Your task to perform on an android device: Open Google Maps and go to "Timeline" Image 0: 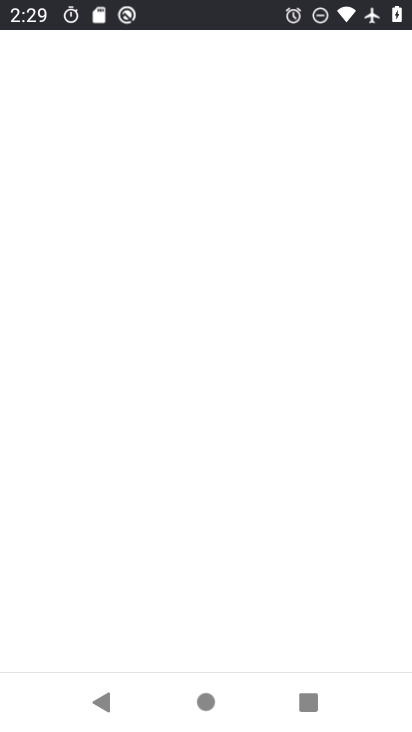
Step 0: press home button
Your task to perform on an android device: Open Google Maps and go to "Timeline" Image 1: 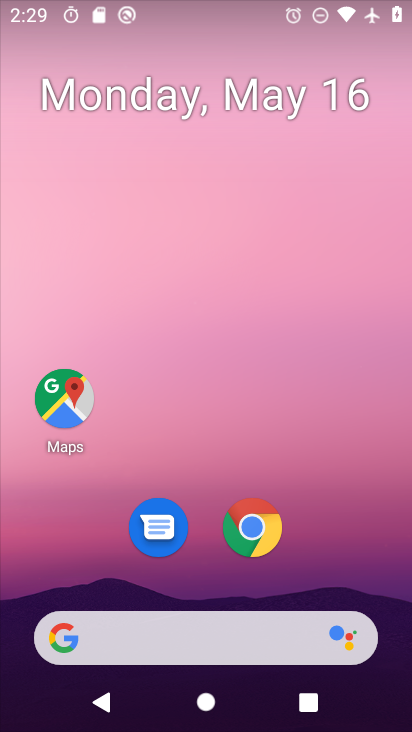
Step 1: click (70, 407)
Your task to perform on an android device: Open Google Maps and go to "Timeline" Image 2: 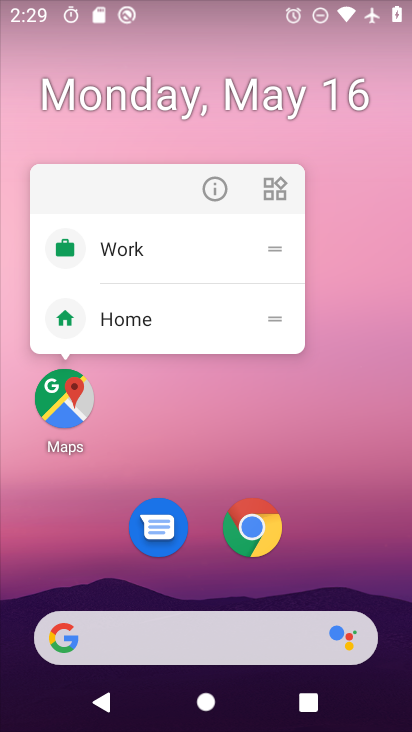
Step 2: click (64, 403)
Your task to perform on an android device: Open Google Maps and go to "Timeline" Image 3: 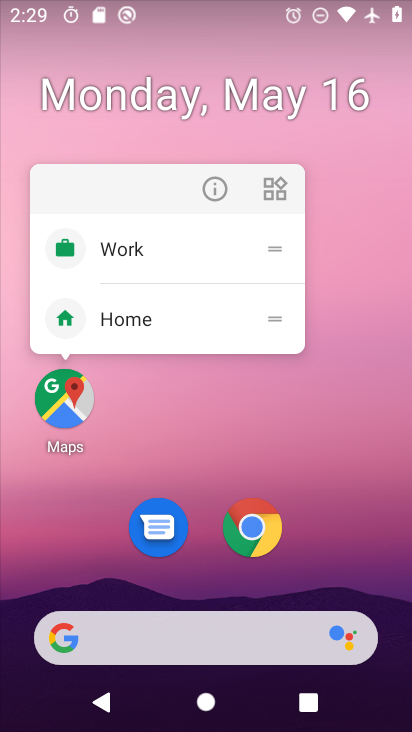
Step 3: click (56, 401)
Your task to perform on an android device: Open Google Maps and go to "Timeline" Image 4: 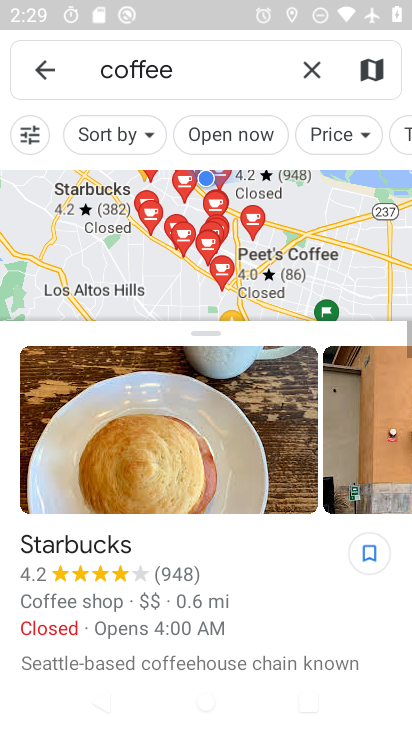
Step 4: click (36, 71)
Your task to perform on an android device: Open Google Maps and go to "Timeline" Image 5: 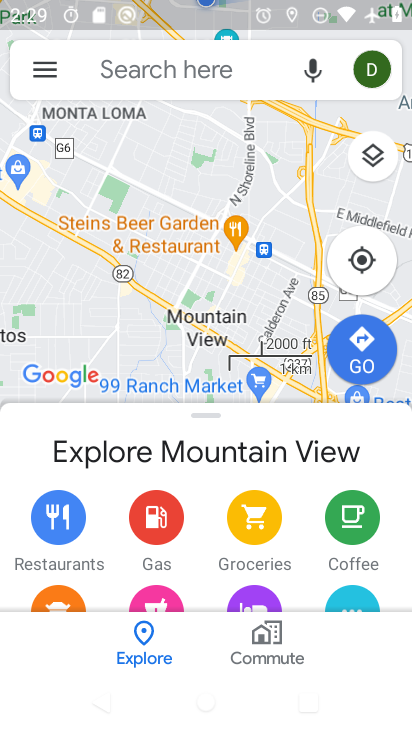
Step 5: click (44, 70)
Your task to perform on an android device: Open Google Maps and go to "Timeline" Image 6: 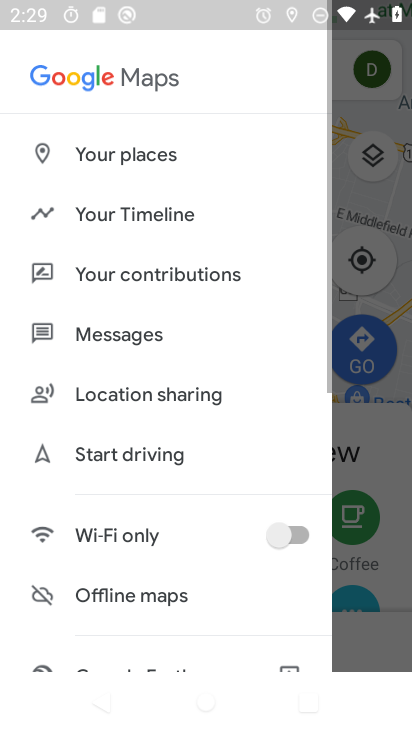
Step 6: click (136, 216)
Your task to perform on an android device: Open Google Maps and go to "Timeline" Image 7: 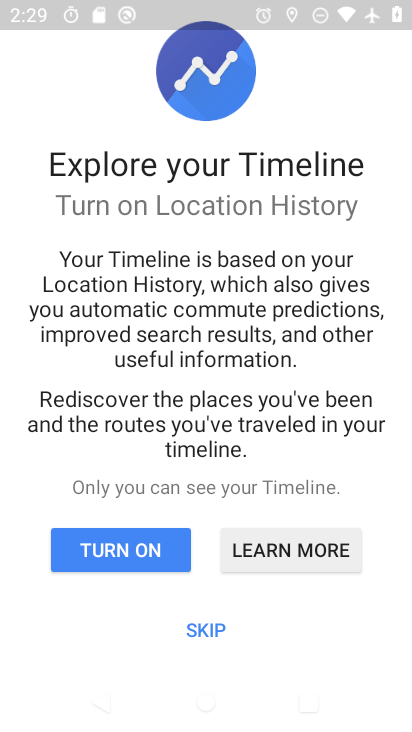
Step 7: click (204, 625)
Your task to perform on an android device: Open Google Maps and go to "Timeline" Image 8: 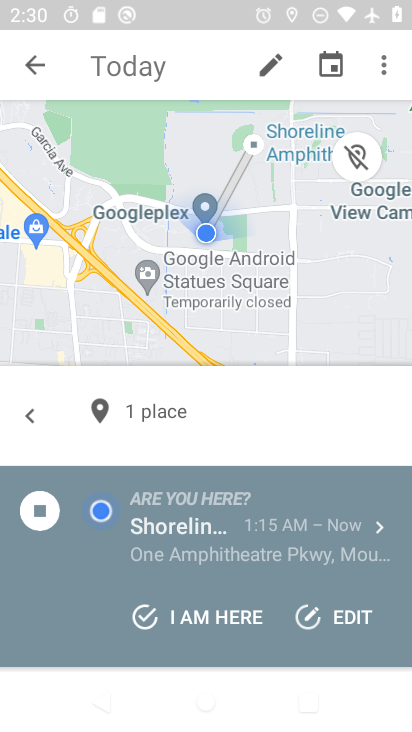
Step 8: task complete